Your task to perform on an android device: Search for "logitech g910" on bestbuy, select the first entry, and add it to the cart. Image 0: 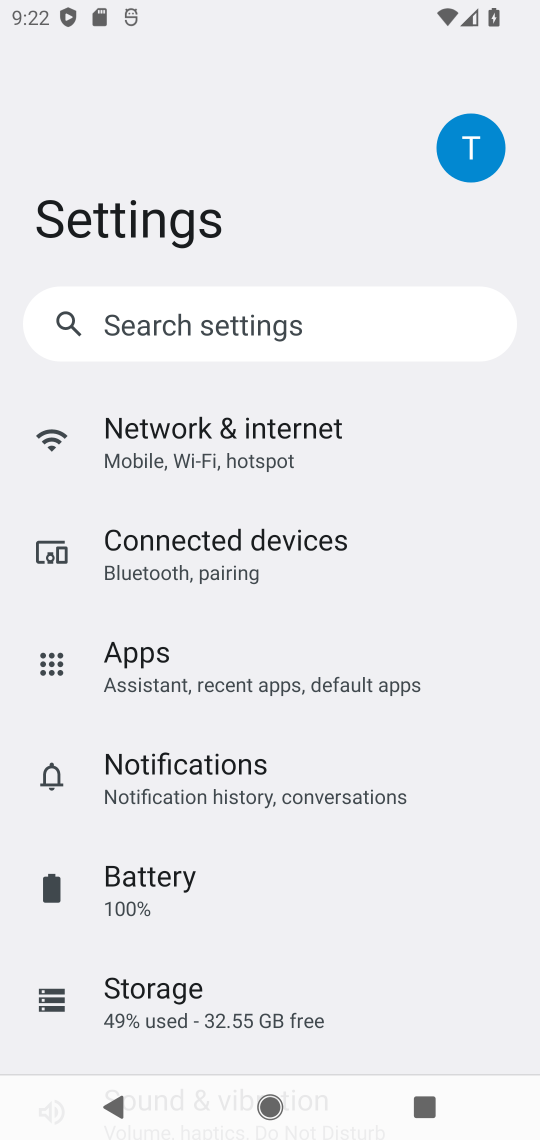
Step 0: press home button
Your task to perform on an android device: Search for "logitech g910" on bestbuy, select the first entry, and add it to the cart. Image 1: 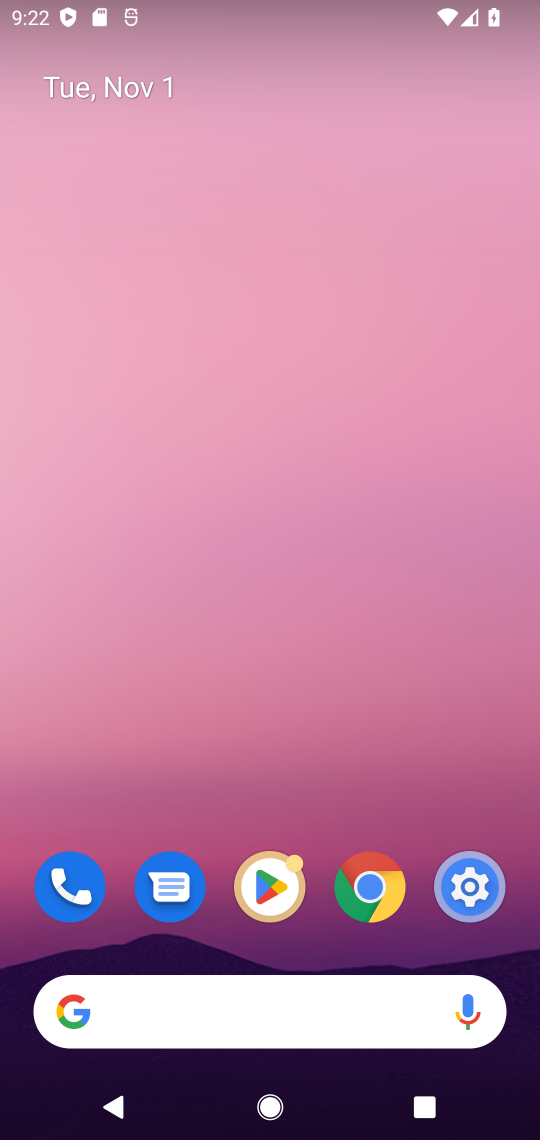
Step 1: click (386, 871)
Your task to perform on an android device: Search for "logitech g910" on bestbuy, select the first entry, and add it to the cart. Image 2: 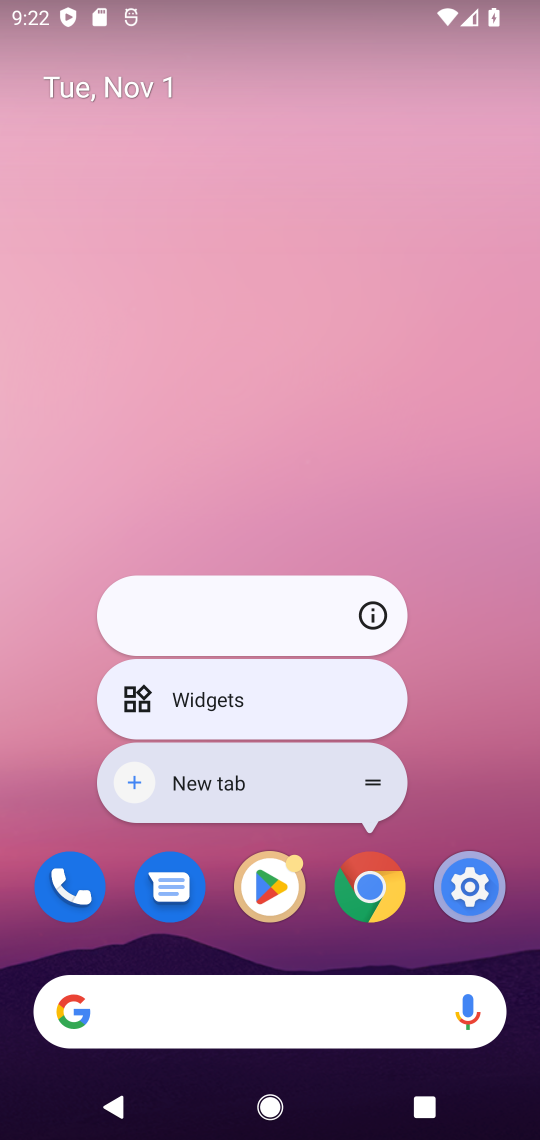
Step 2: click (386, 871)
Your task to perform on an android device: Search for "logitech g910" on bestbuy, select the first entry, and add it to the cart. Image 3: 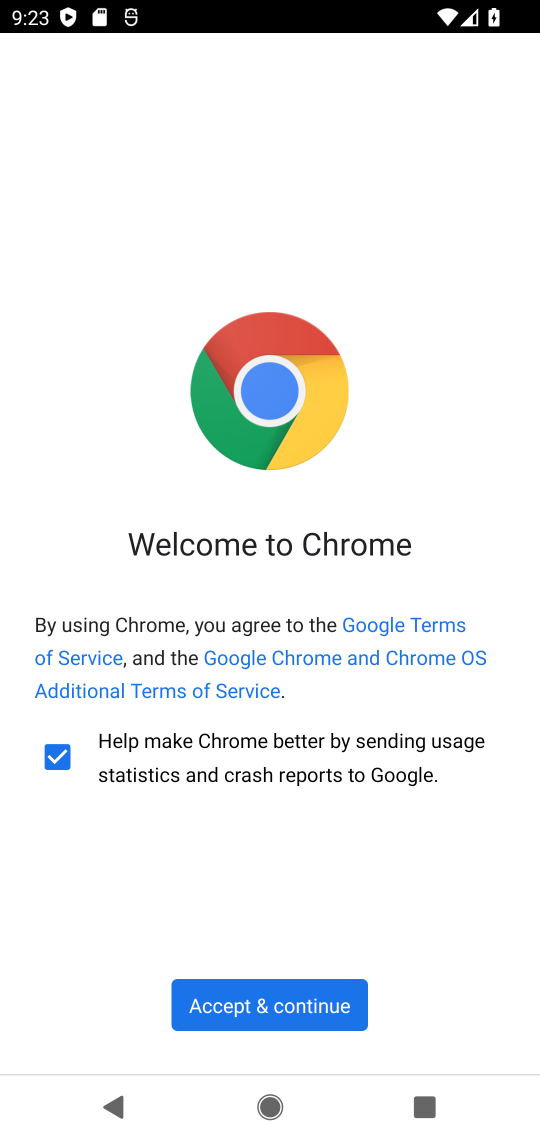
Step 3: click (287, 990)
Your task to perform on an android device: Search for "logitech g910" on bestbuy, select the first entry, and add it to the cart. Image 4: 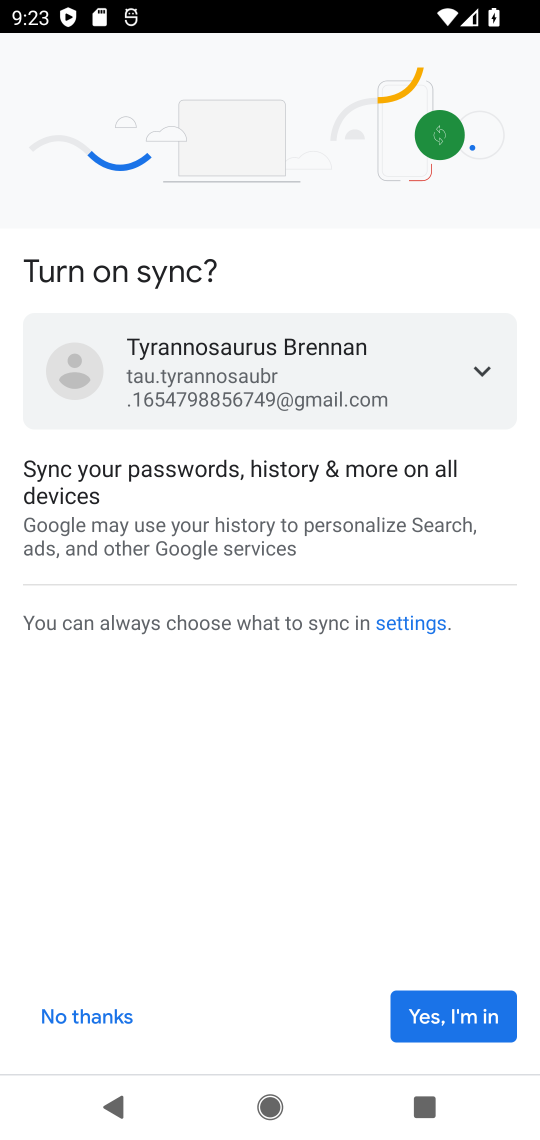
Step 4: click (462, 988)
Your task to perform on an android device: Search for "logitech g910" on bestbuy, select the first entry, and add it to the cart. Image 5: 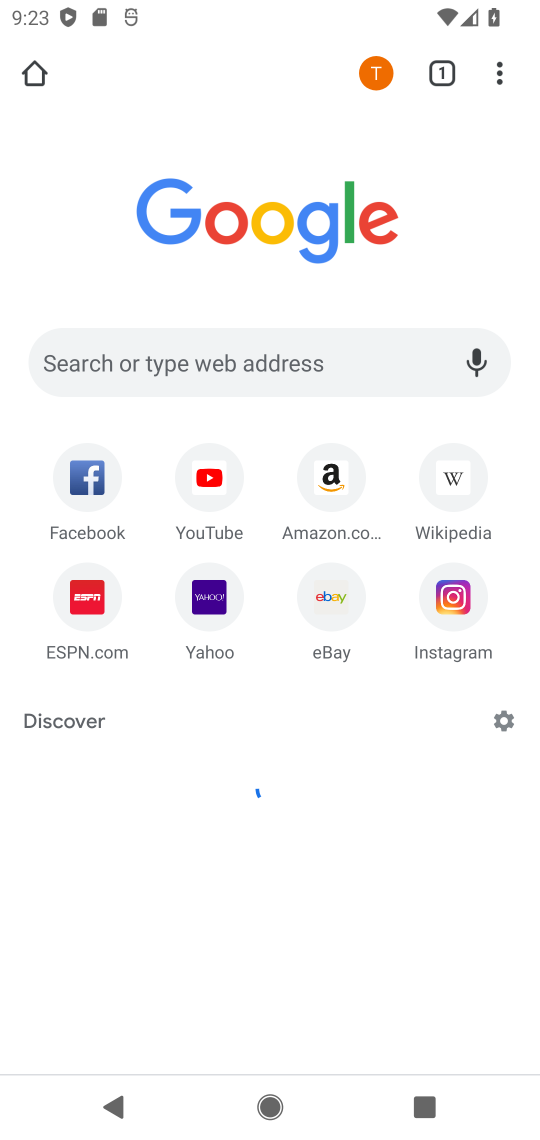
Step 5: click (249, 368)
Your task to perform on an android device: Search for "logitech g910" on bestbuy, select the first entry, and add it to the cart. Image 6: 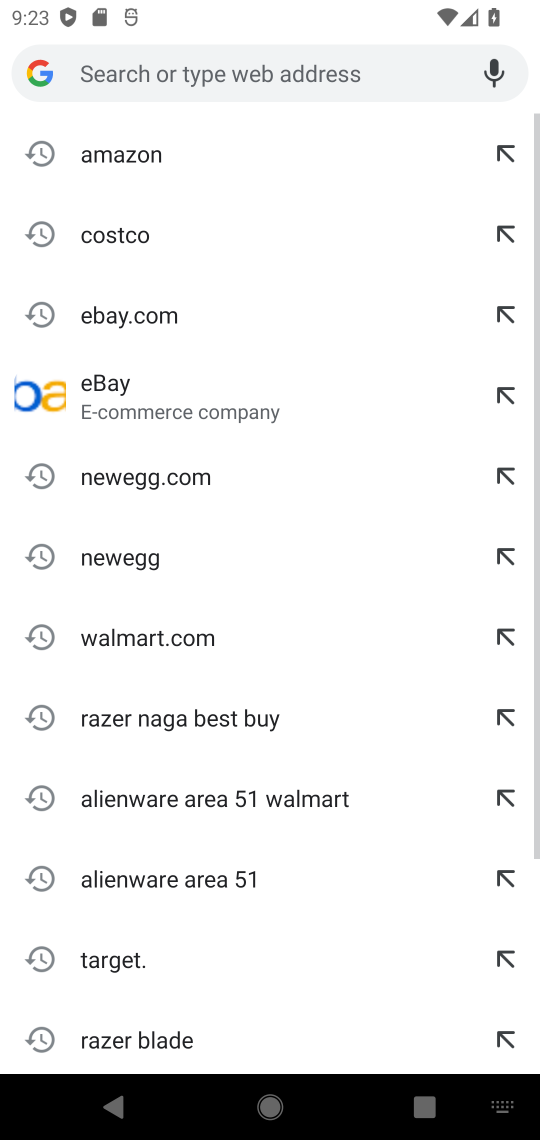
Step 6: press enter
Your task to perform on an android device: Search for "logitech g910" on bestbuy, select the first entry, and add it to the cart. Image 7: 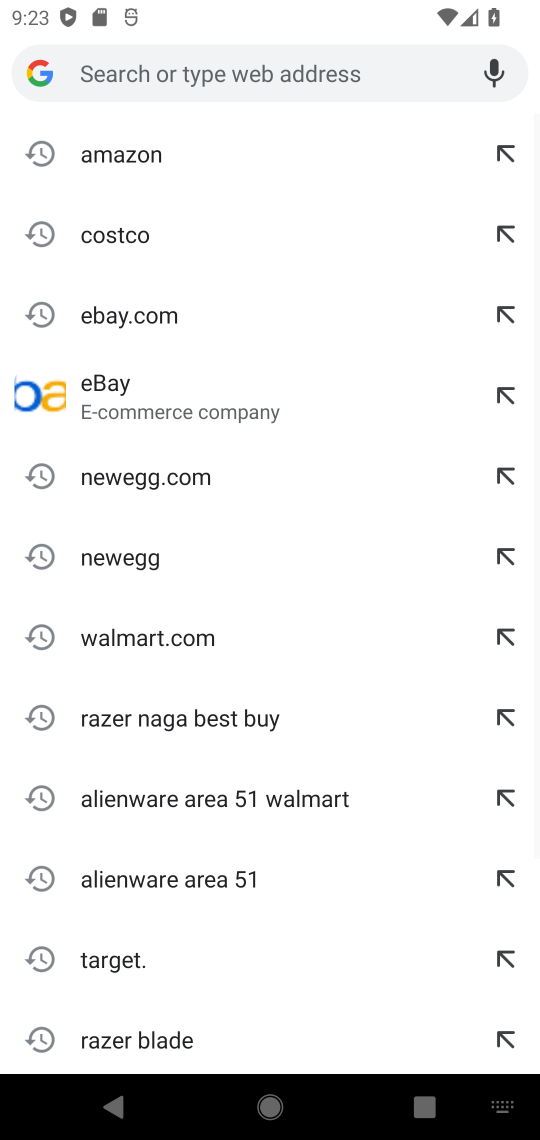
Step 7: type "bestbuy"
Your task to perform on an android device: Search for "logitech g910" on bestbuy, select the first entry, and add it to the cart. Image 8: 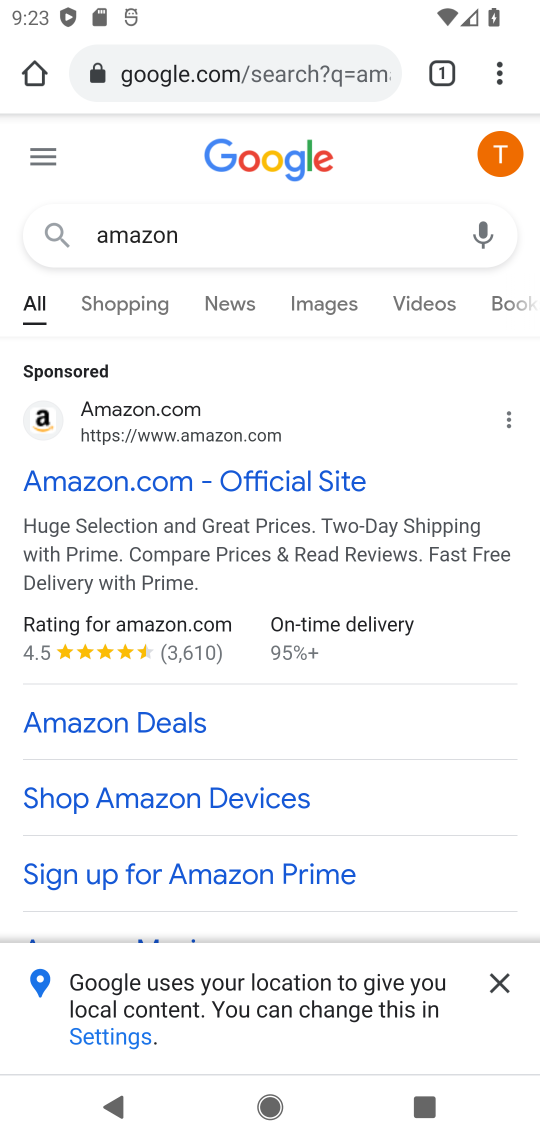
Step 8: click (110, 404)
Your task to perform on an android device: Search for "logitech g910" on bestbuy, select the first entry, and add it to the cart. Image 9: 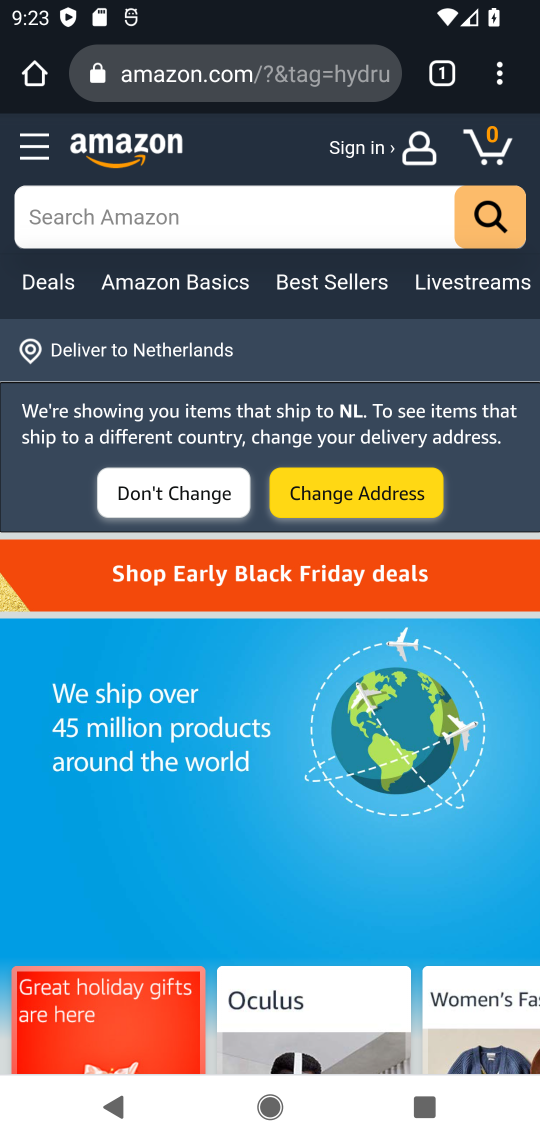
Step 9: click (314, 209)
Your task to perform on an android device: Search for "logitech g910" on bestbuy, select the first entry, and add it to the cart. Image 10: 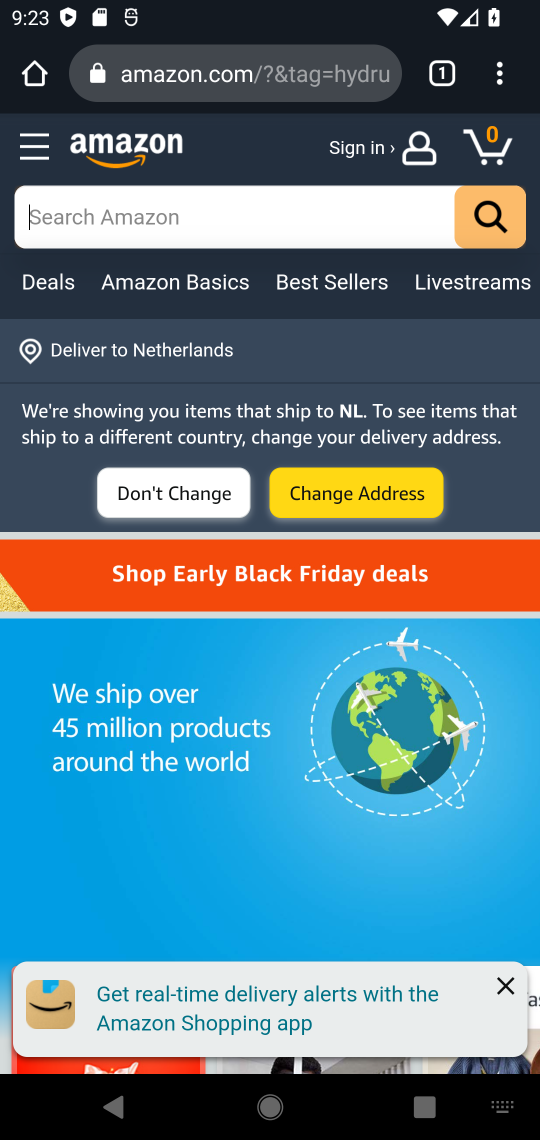
Step 10: press enter
Your task to perform on an android device: Search for "logitech g910" on bestbuy, select the first entry, and add it to the cart. Image 11: 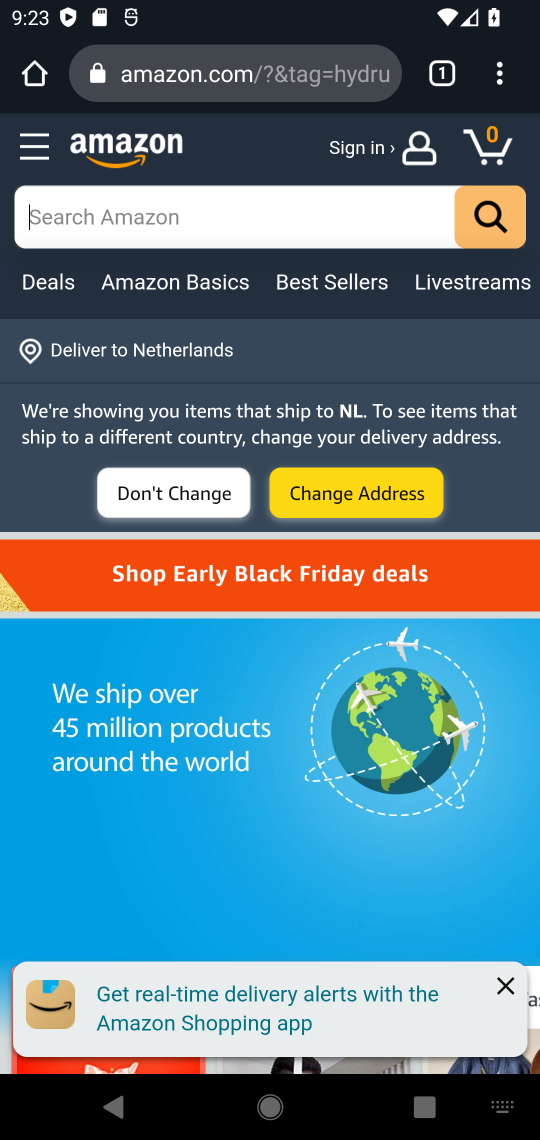
Step 11: type "logitech g910"
Your task to perform on an android device: Search for "logitech g910" on bestbuy, select the first entry, and add it to the cart. Image 12: 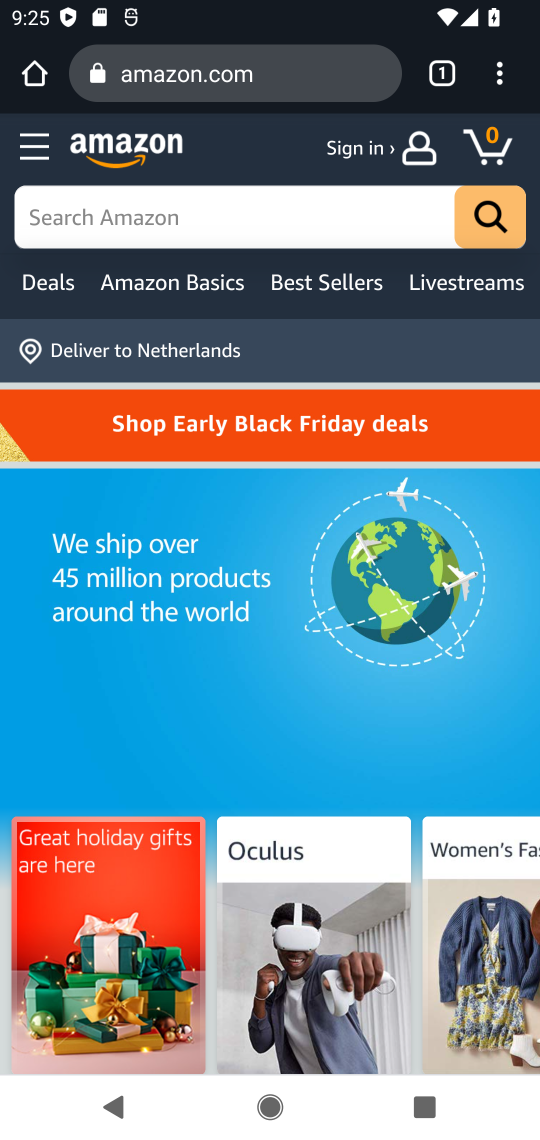
Step 12: click (273, 222)
Your task to perform on an android device: Search for "logitech g910" on bestbuy, select the first entry, and add it to the cart. Image 13: 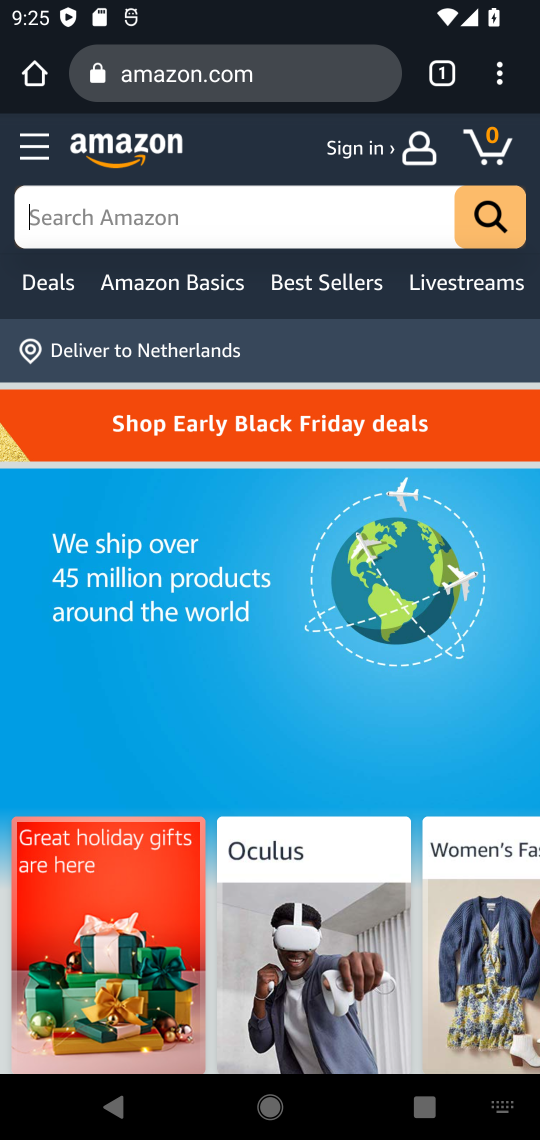
Step 13: press enter
Your task to perform on an android device: Search for "logitech g910" on bestbuy, select the first entry, and add it to the cart. Image 14: 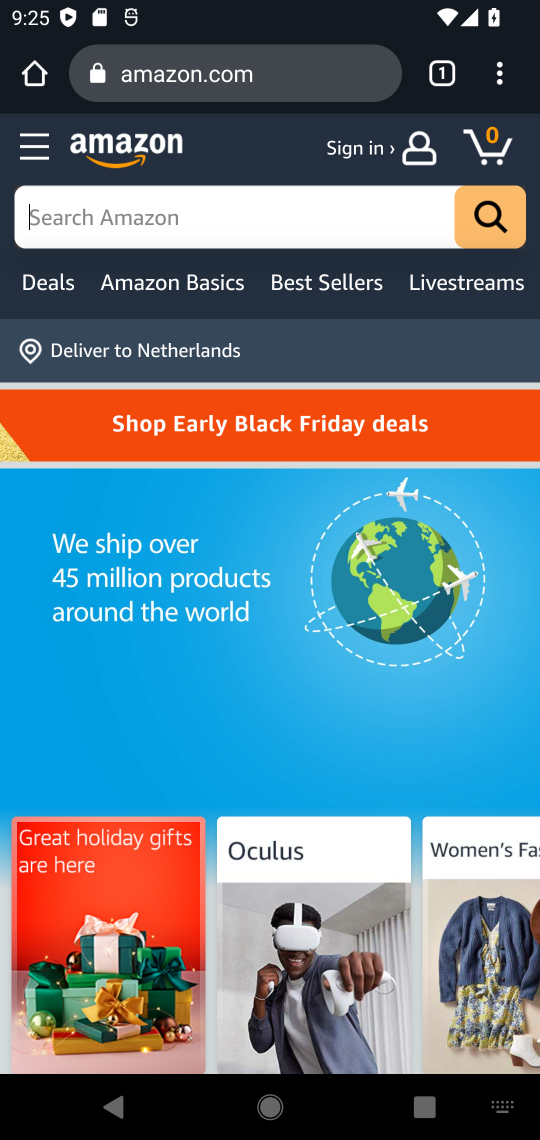
Step 14: type "logitech g910"
Your task to perform on an android device: Search for "logitech g910" on bestbuy, select the first entry, and add it to the cart. Image 15: 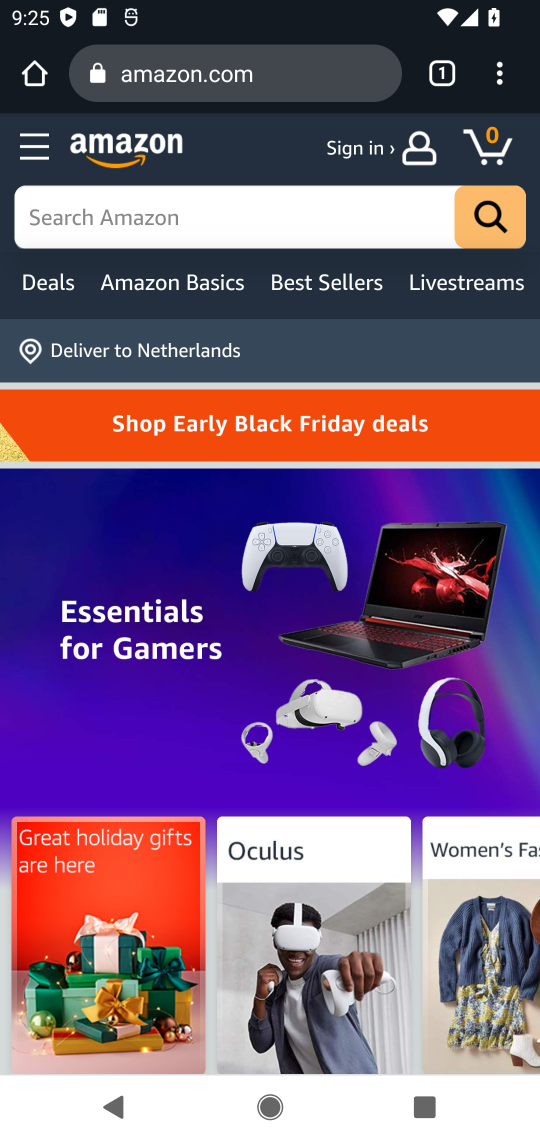
Step 15: click (307, 206)
Your task to perform on an android device: Search for "logitech g910" on bestbuy, select the first entry, and add it to the cart. Image 16: 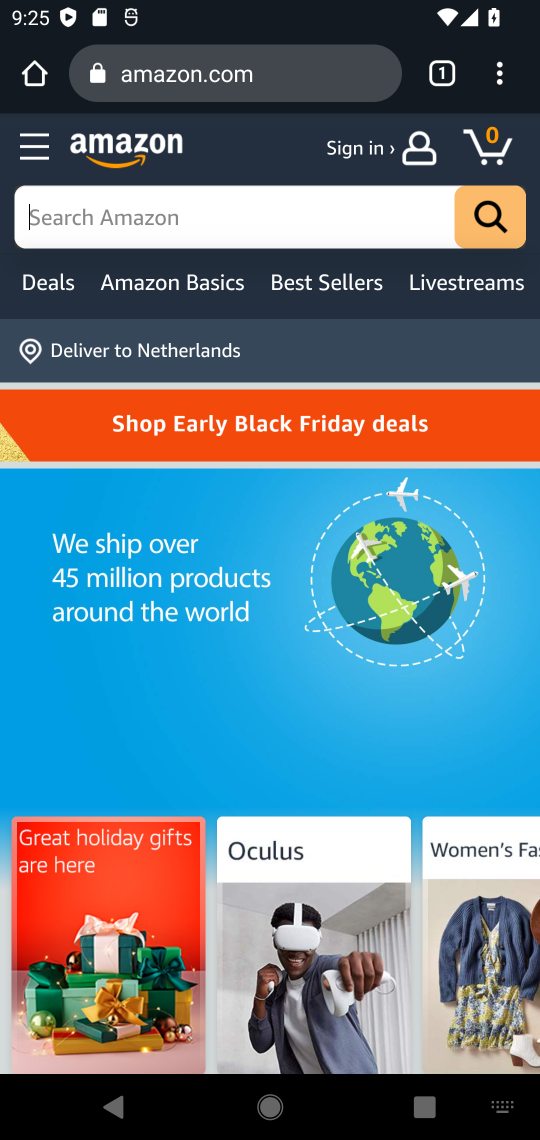
Step 16: type "logitech g910"
Your task to perform on an android device: Search for "logitech g910" on bestbuy, select the first entry, and add it to the cart. Image 17: 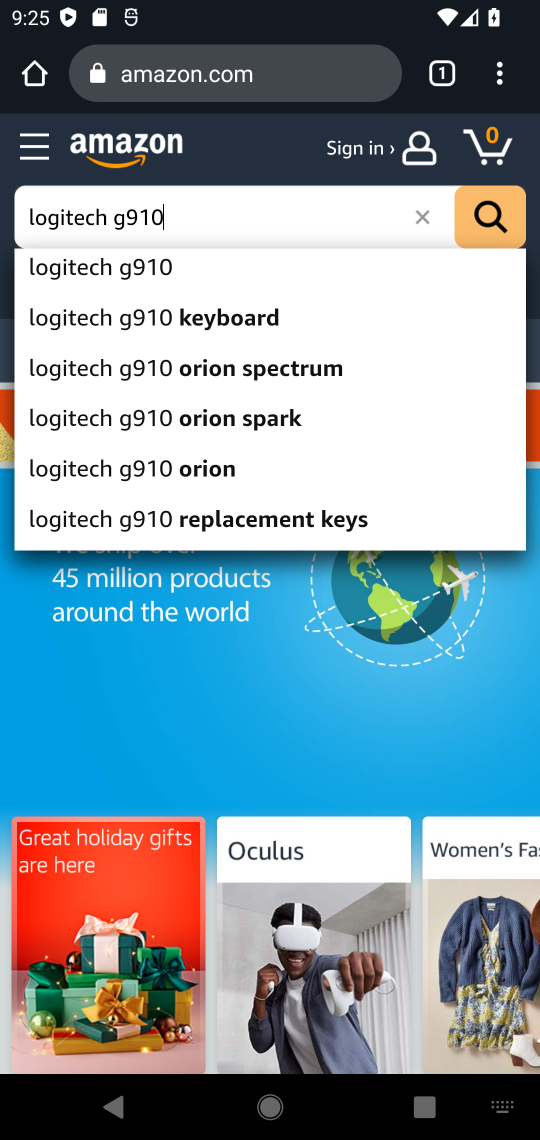
Step 17: click (164, 263)
Your task to perform on an android device: Search for "logitech g910" on bestbuy, select the first entry, and add it to the cart. Image 18: 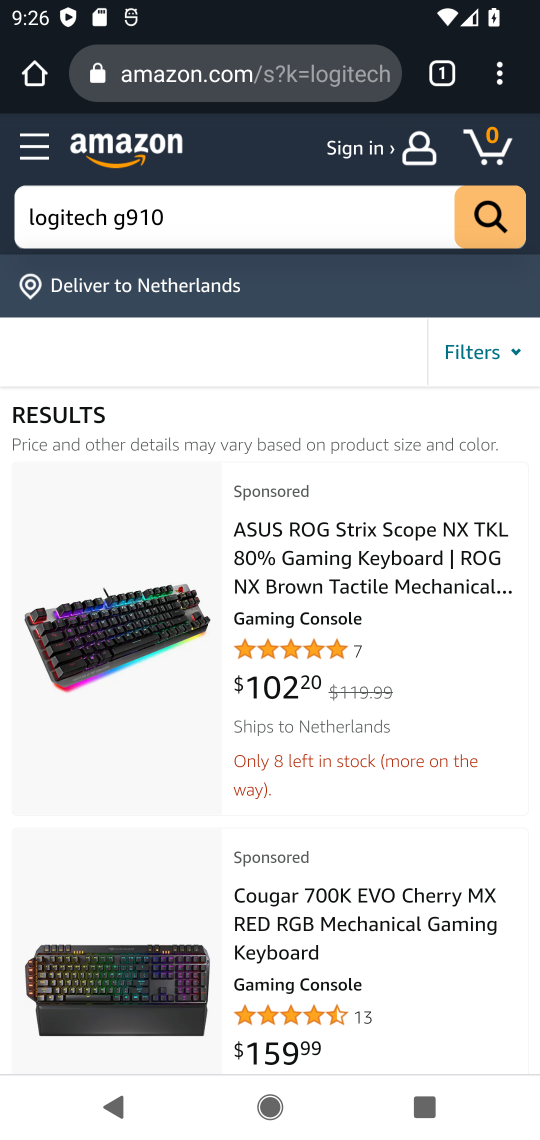
Step 18: drag from (90, 853) to (167, 510)
Your task to perform on an android device: Search for "logitech g910" on bestbuy, select the first entry, and add it to the cart. Image 19: 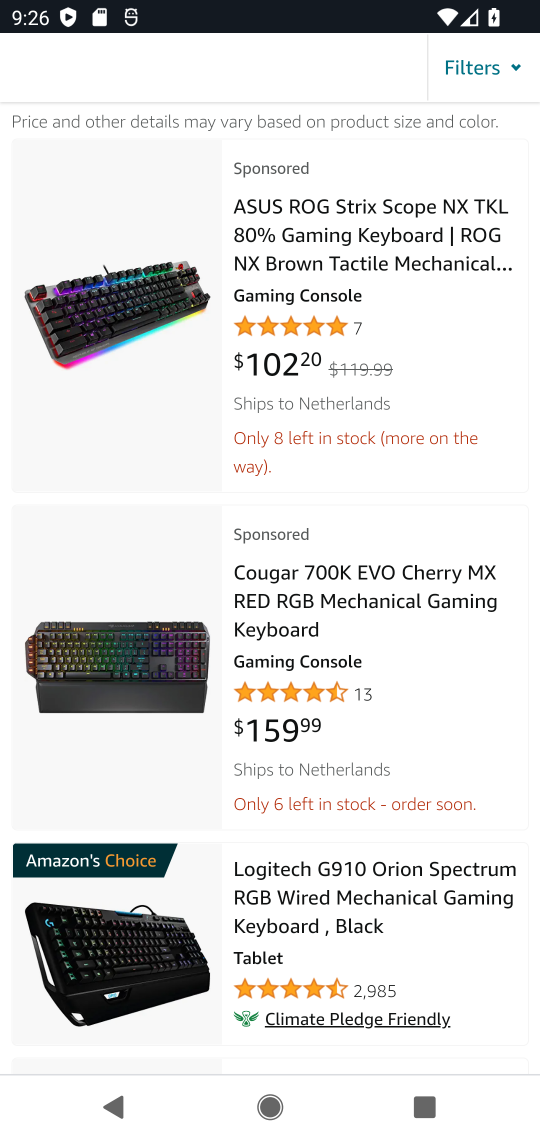
Step 19: click (132, 858)
Your task to perform on an android device: Search for "logitech g910" on bestbuy, select the first entry, and add it to the cart. Image 20: 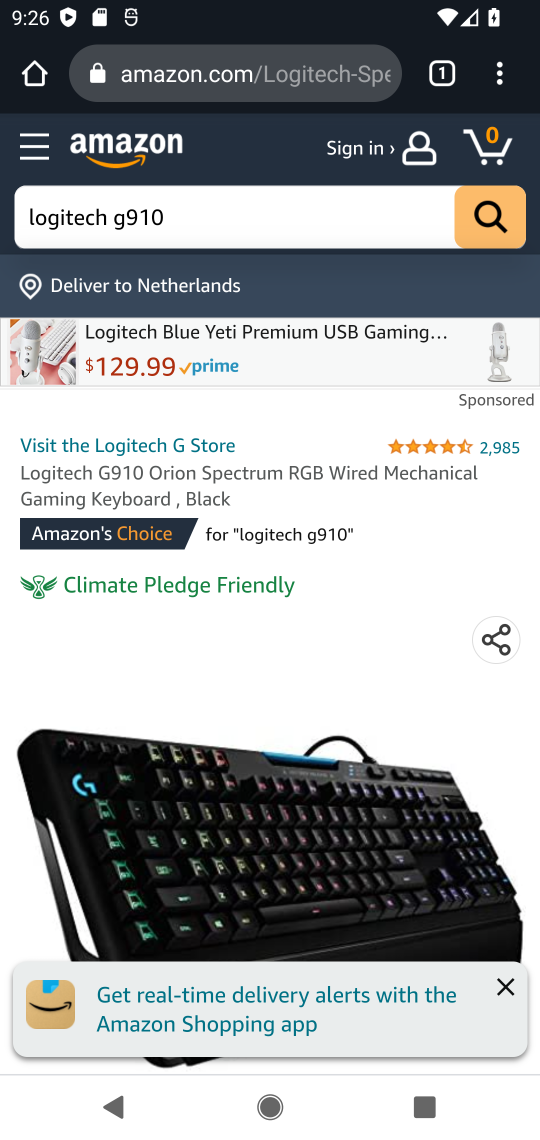
Step 20: drag from (218, 791) to (238, 227)
Your task to perform on an android device: Search for "logitech g910" on bestbuy, select the first entry, and add it to the cart. Image 21: 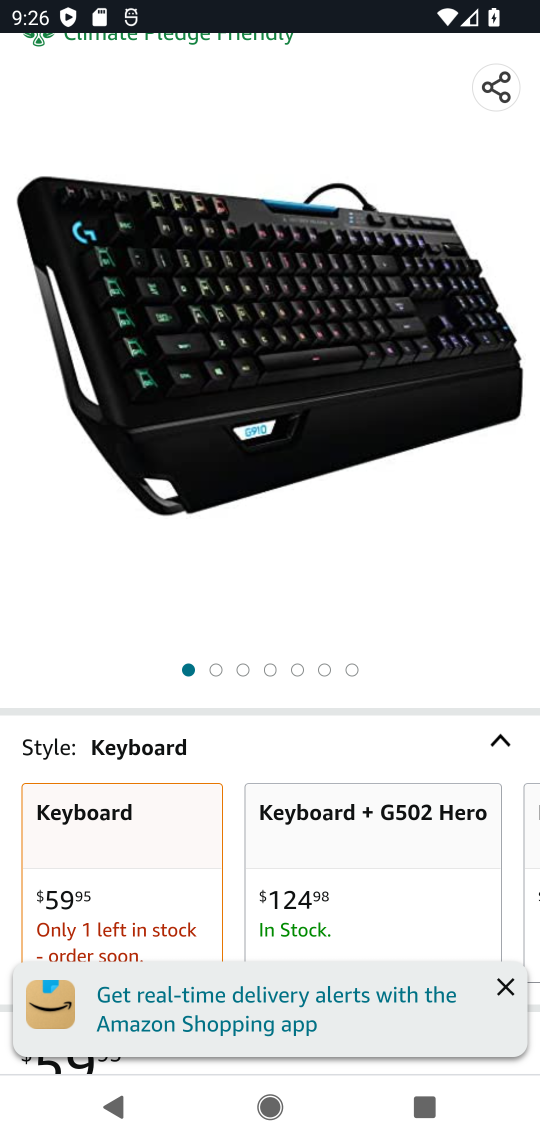
Step 21: drag from (265, 734) to (281, 396)
Your task to perform on an android device: Search for "logitech g910" on bestbuy, select the first entry, and add it to the cart. Image 22: 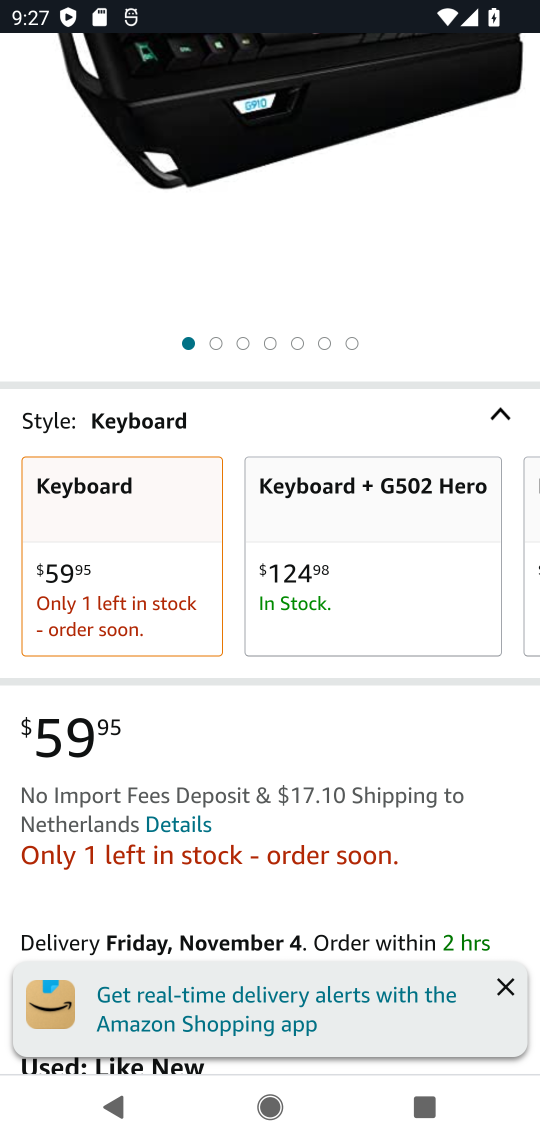
Step 22: drag from (289, 695) to (261, 331)
Your task to perform on an android device: Search for "logitech g910" on bestbuy, select the first entry, and add it to the cart. Image 23: 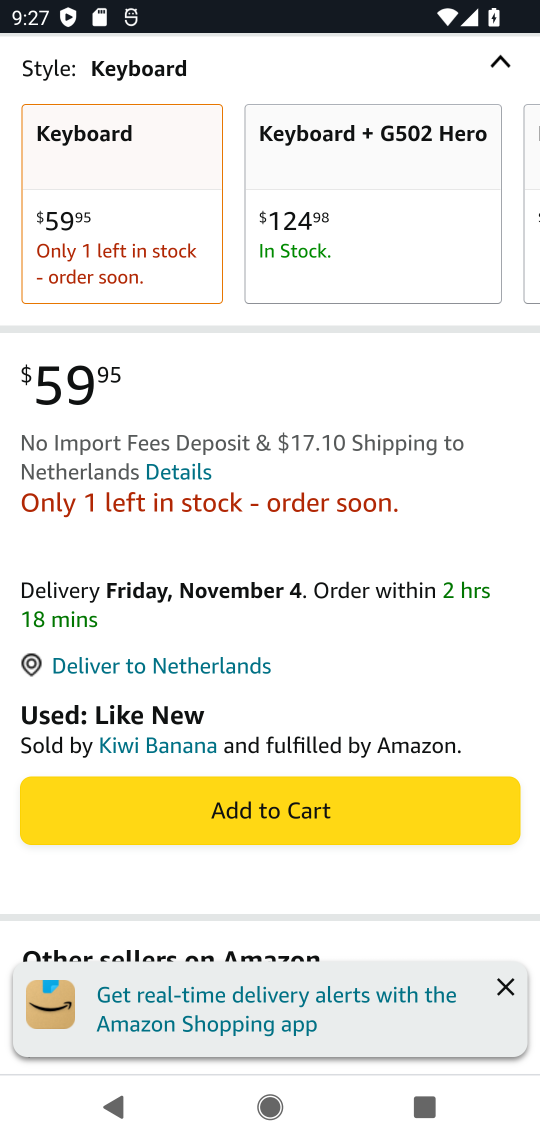
Step 23: click (322, 801)
Your task to perform on an android device: Search for "logitech g910" on bestbuy, select the first entry, and add it to the cart. Image 24: 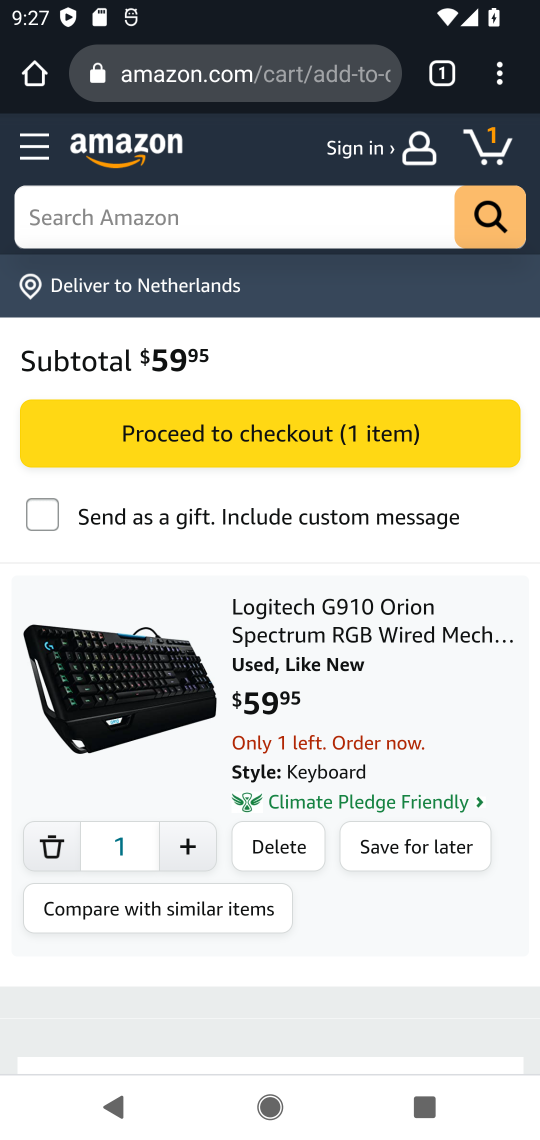
Step 24: task complete